Your task to perform on an android device: Check the weather Image 0: 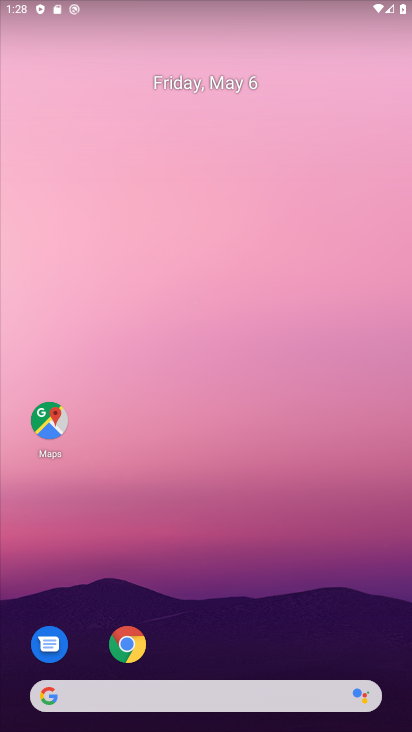
Step 0: click (174, 700)
Your task to perform on an android device: Check the weather Image 1: 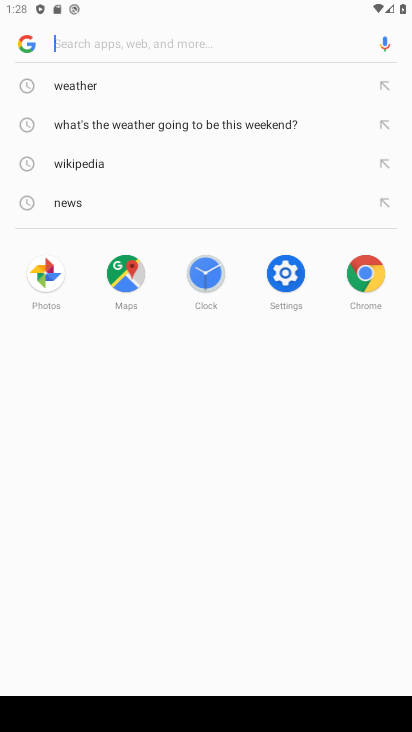
Step 1: click (60, 80)
Your task to perform on an android device: Check the weather Image 2: 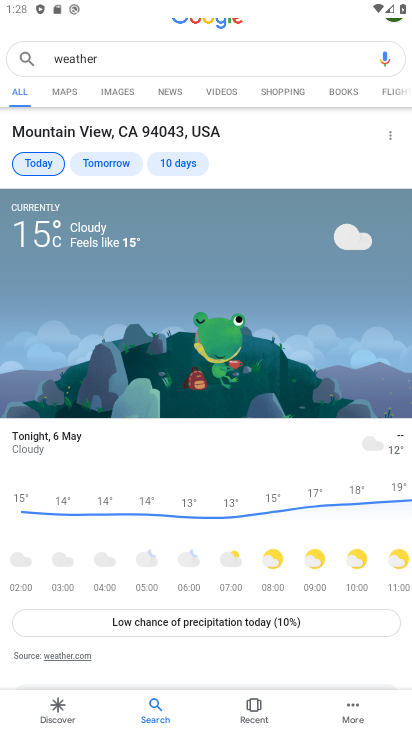
Step 2: task complete